Your task to perform on an android device: turn on bluetooth scan Image 0: 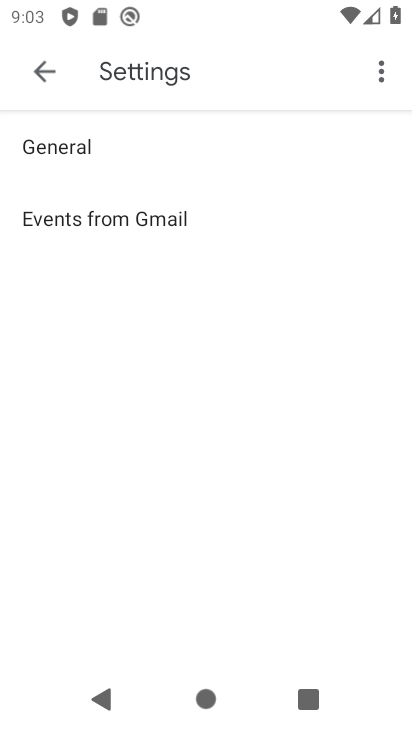
Step 0: press home button
Your task to perform on an android device: turn on bluetooth scan Image 1: 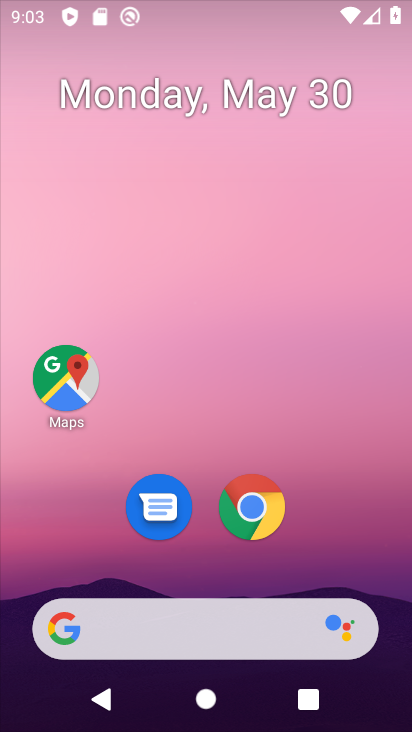
Step 1: drag from (218, 604) to (194, 276)
Your task to perform on an android device: turn on bluetooth scan Image 2: 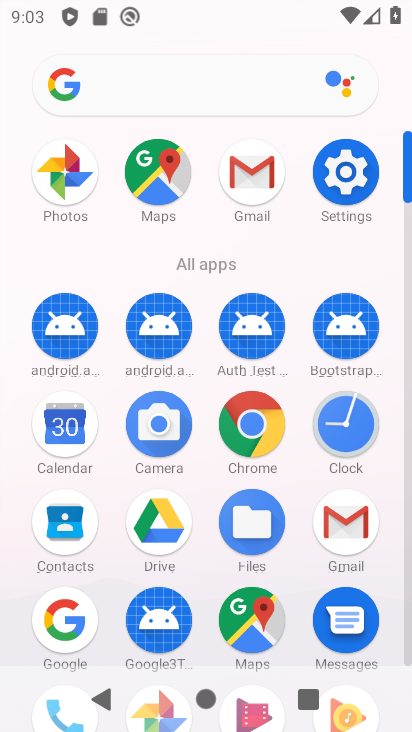
Step 2: click (341, 172)
Your task to perform on an android device: turn on bluetooth scan Image 3: 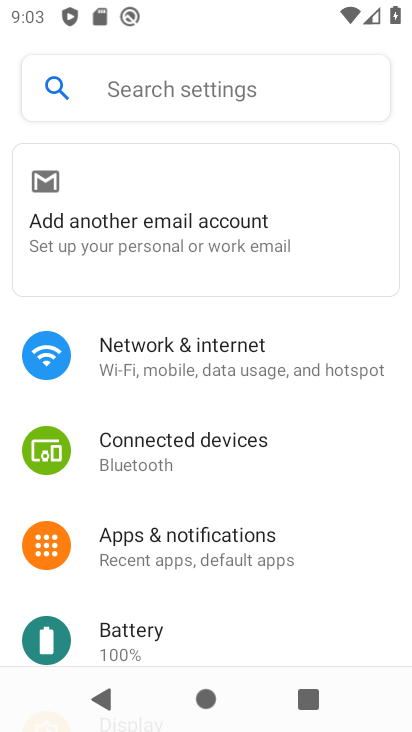
Step 3: drag from (173, 556) to (158, 326)
Your task to perform on an android device: turn on bluetooth scan Image 4: 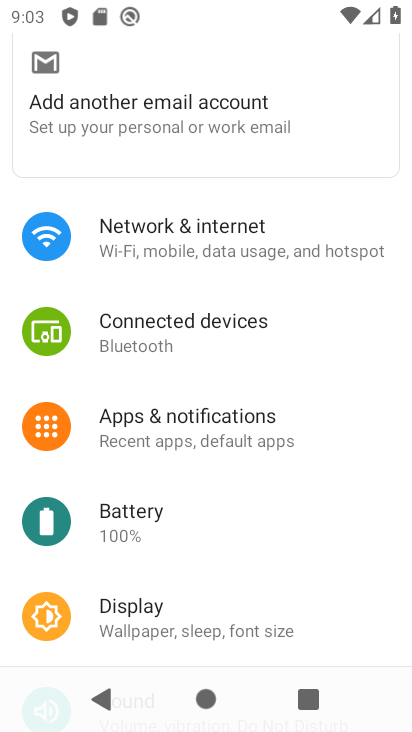
Step 4: drag from (143, 613) to (131, 277)
Your task to perform on an android device: turn on bluetooth scan Image 5: 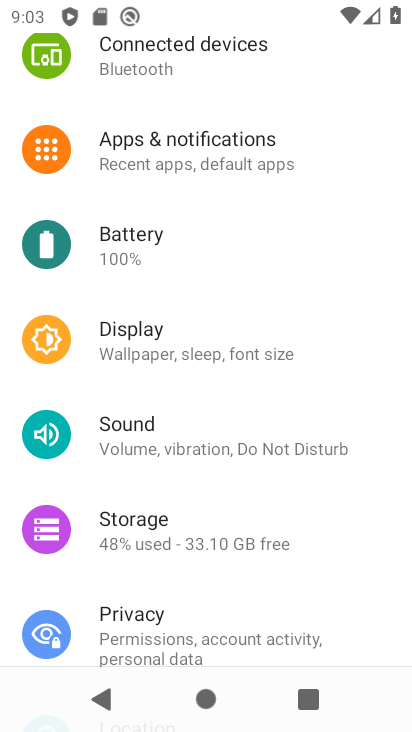
Step 5: drag from (170, 583) to (170, 300)
Your task to perform on an android device: turn on bluetooth scan Image 6: 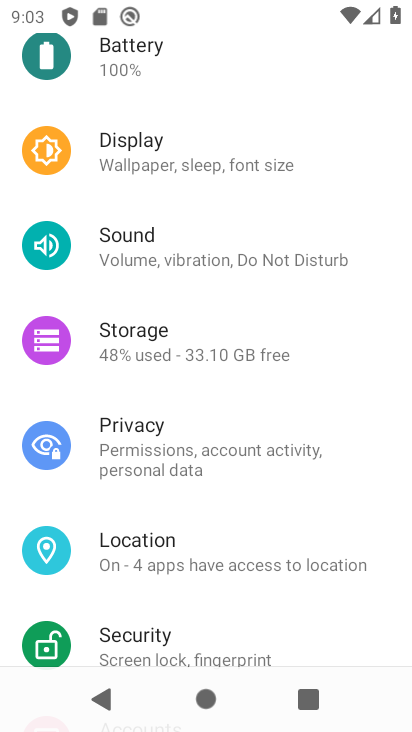
Step 6: click (150, 562)
Your task to perform on an android device: turn on bluetooth scan Image 7: 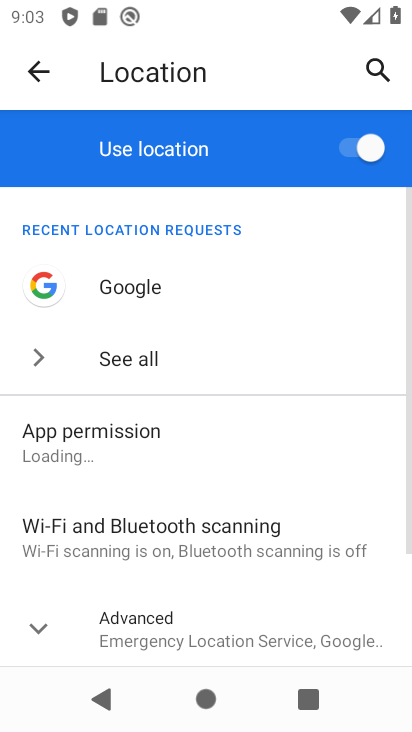
Step 7: click (145, 542)
Your task to perform on an android device: turn on bluetooth scan Image 8: 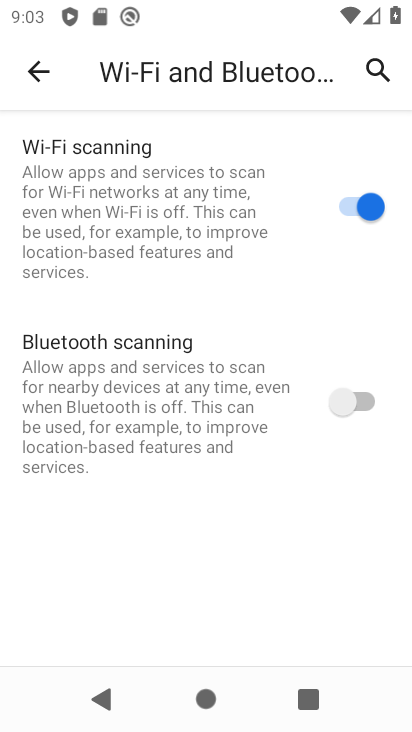
Step 8: click (363, 403)
Your task to perform on an android device: turn on bluetooth scan Image 9: 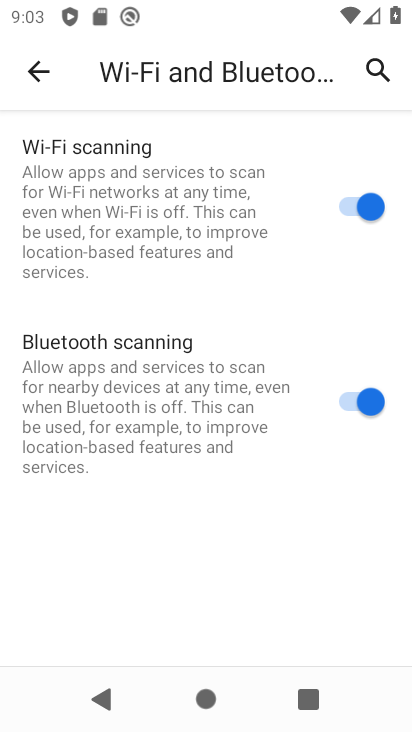
Step 9: task complete